Your task to perform on an android device: Open CNN.com Image 0: 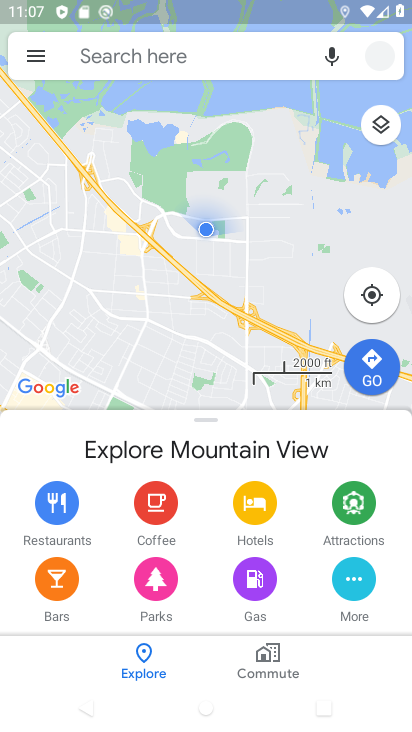
Step 0: press home button
Your task to perform on an android device: Open CNN.com Image 1: 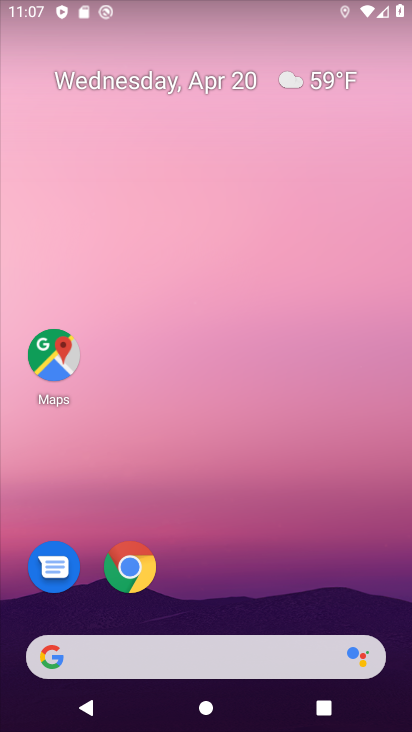
Step 1: click (133, 563)
Your task to perform on an android device: Open CNN.com Image 2: 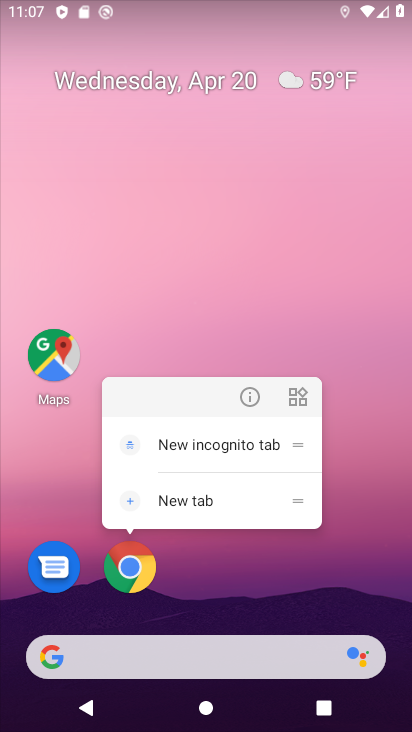
Step 2: click (124, 561)
Your task to perform on an android device: Open CNN.com Image 3: 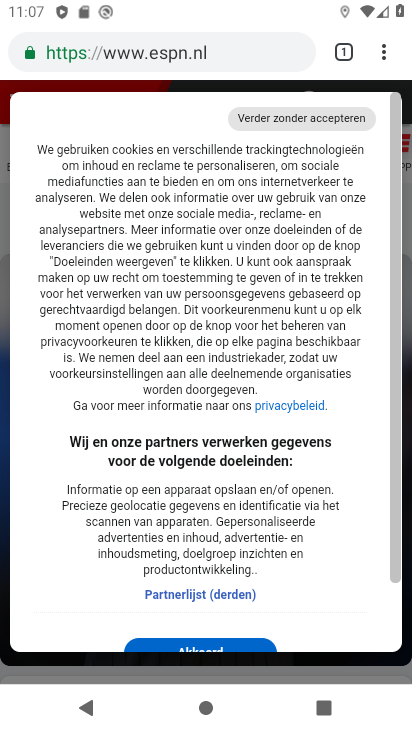
Step 3: click (233, 49)
Your task to perform on an android device: Open CNN.com Image 4: 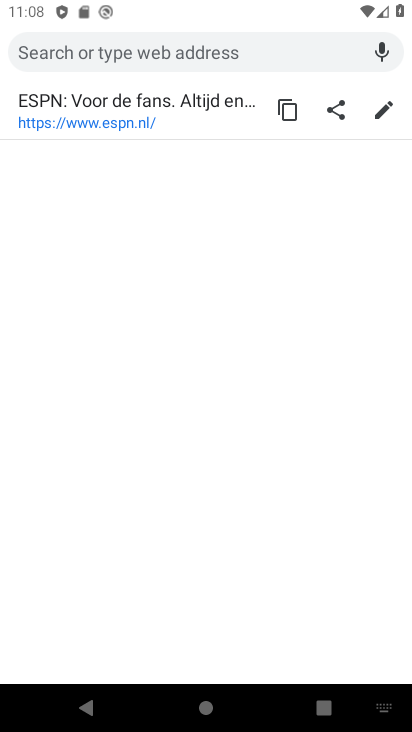
Step 4: type "CNN.com"
Your task to perform on an android device: Open CNN.com Image 5: 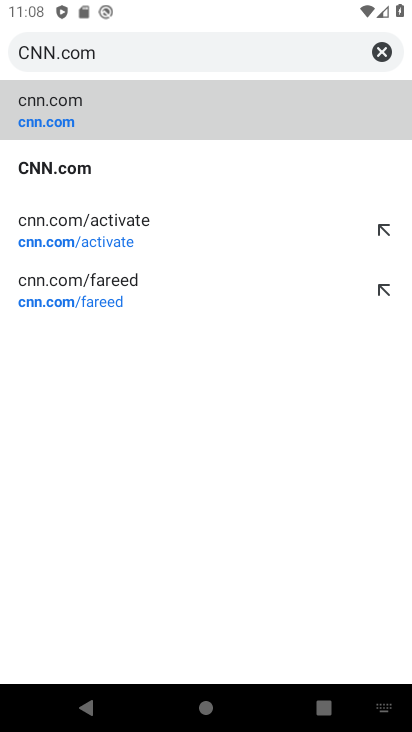
Step 5: click (27, 107)
Your task to perform on an android device: Open CNN.com Image 6: 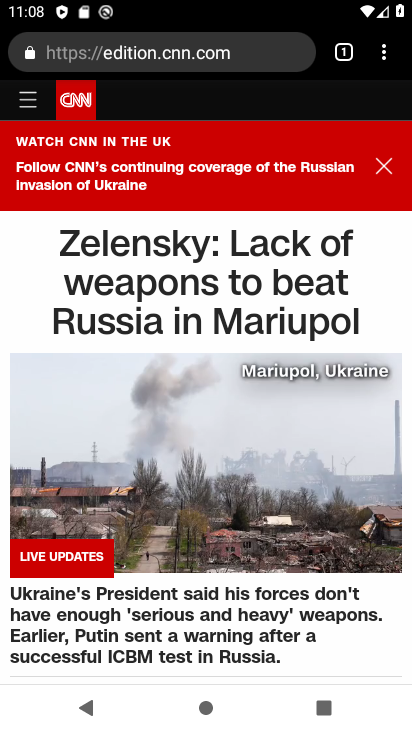
Step 6: task complete